Your task to perform on an android device: Open the stopwatch Image 0: 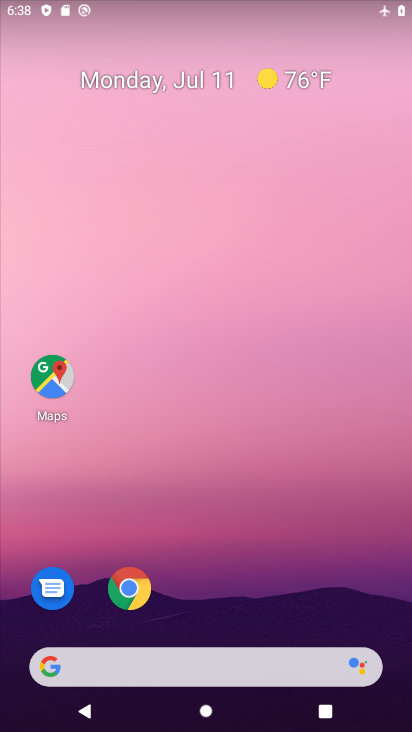
Step 0: drag from (281, 519) to (205, 92)
Your task to perform on an android device: Open the stopwatch Image 1: 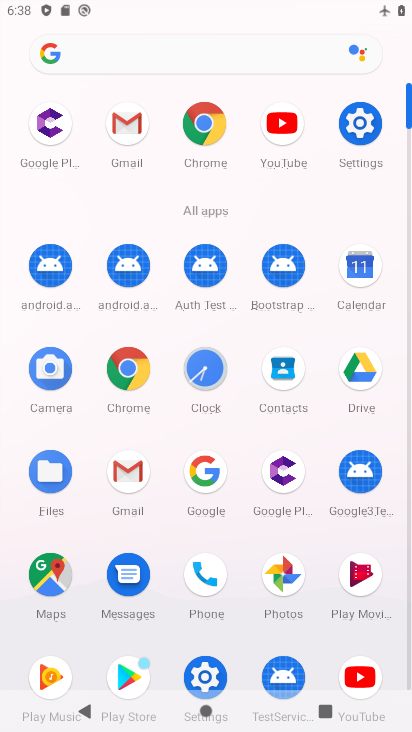
Step 1: click (199, 365)
Your task to perform on an android device: Open the stopwatch Image 2: 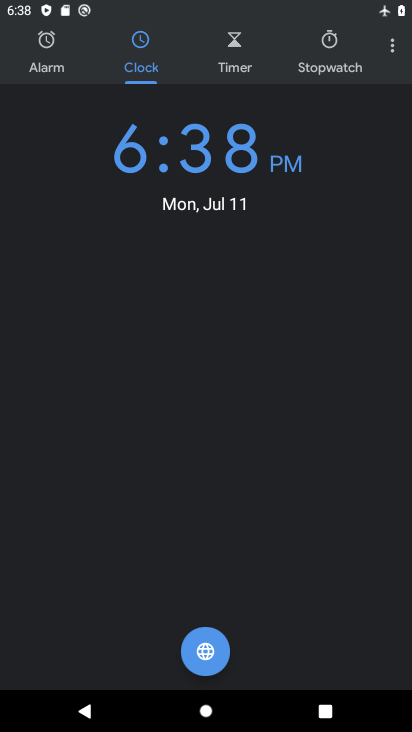
Step 2: click (325, 49)
Your task to perform on an android device: Open the stopwatch Image 3: 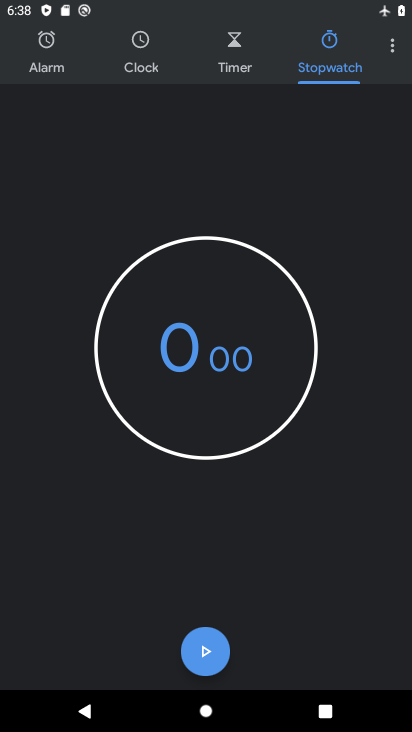
Step 3: task complete